Your task to perform on an android device: turn on bluetooth scan Image 0: 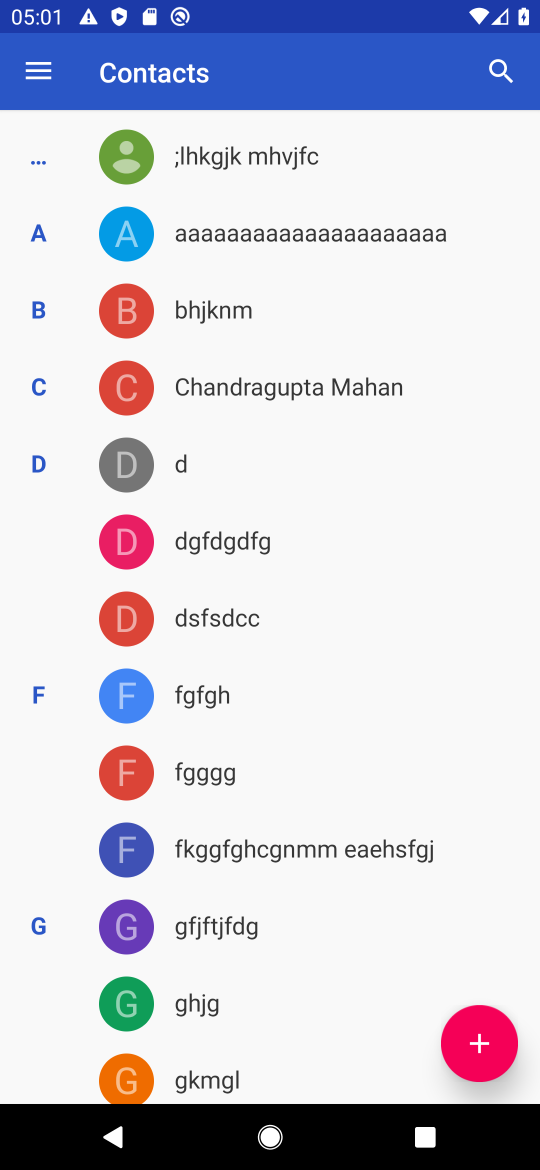
Step 0: press home button
Your task to perform on an android device: turn on bluetooth scan Image 1: 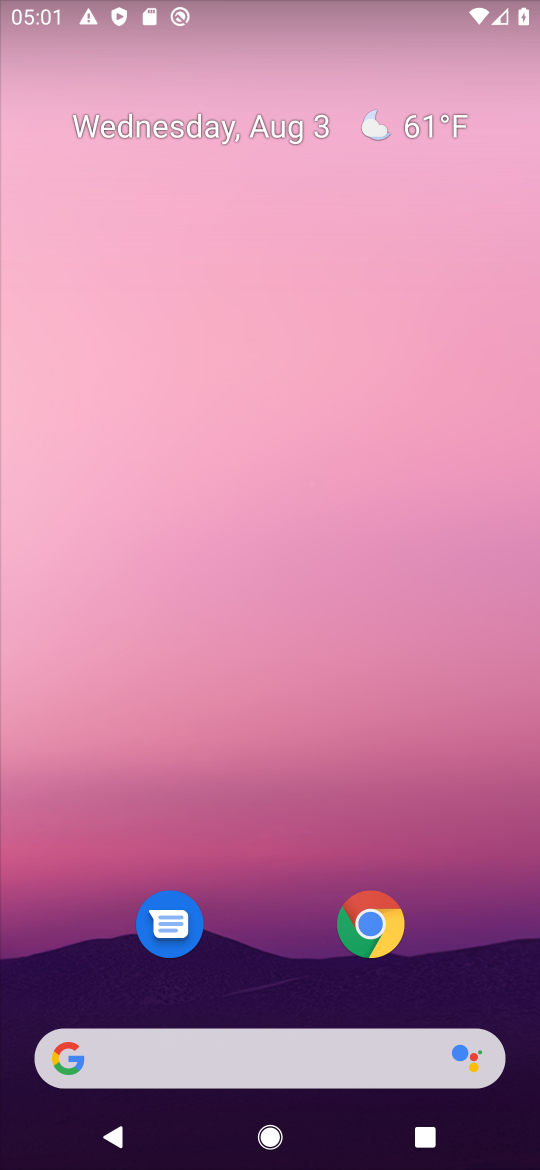
Step 1: drag from (256, 869) to (225, 363)
Your task to perform on an android device: turn on bluetooth scan Image 2: 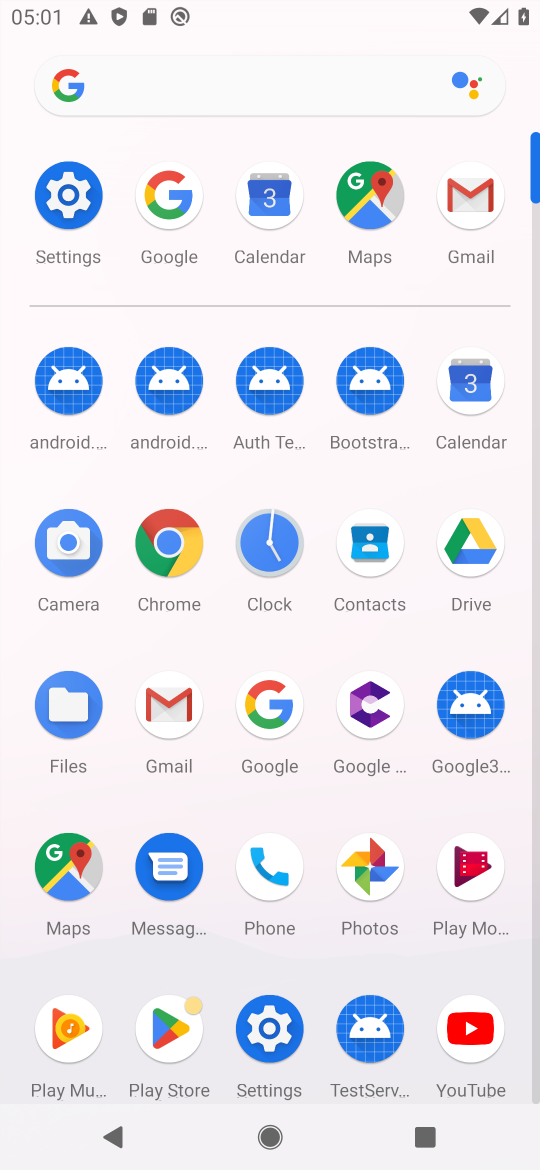
Step 2: click (62, 214)
Your task to perform on an android device: turn on bluetooth scan Image 3: 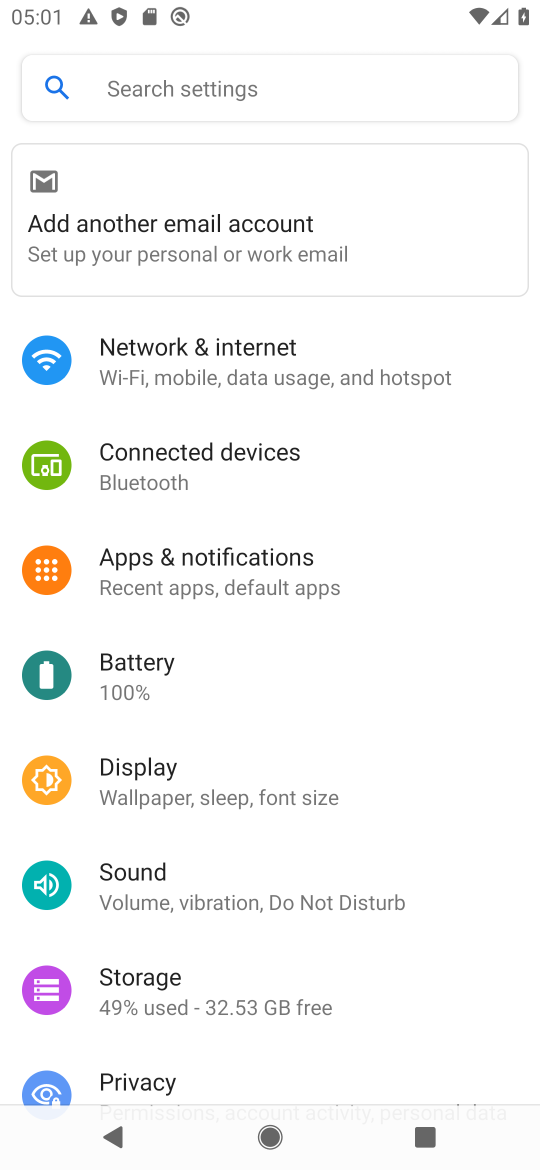
Step 3: drag from (274, 994) to (261, 552)
Your task to perform on an android device: turn on bluetooth scan Image 4: 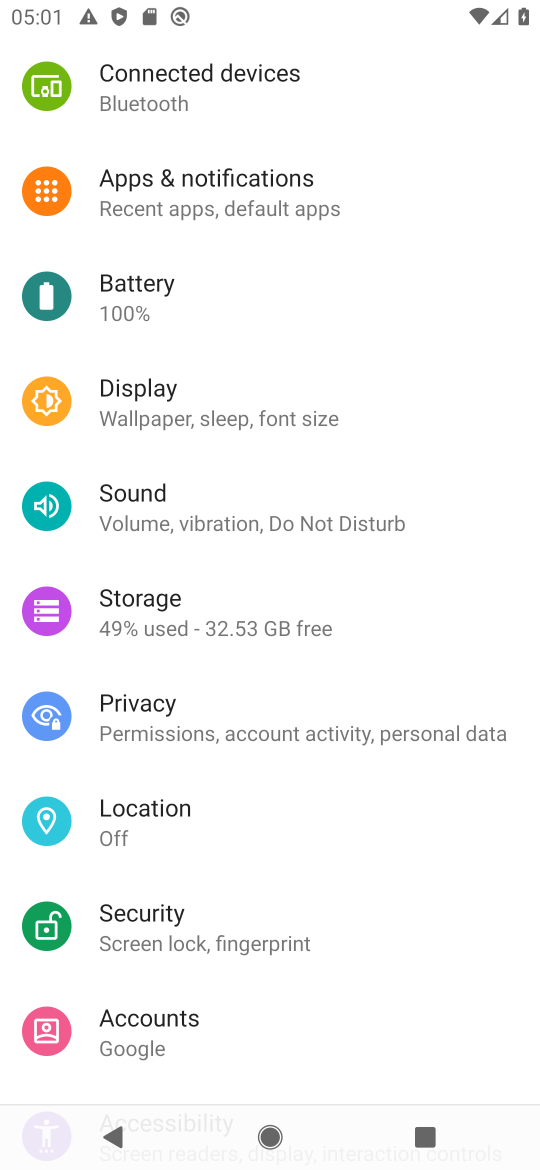
Step 4: click (246, 833)
Your task to perform on an android device: turn on bluetooth scan Image 5: 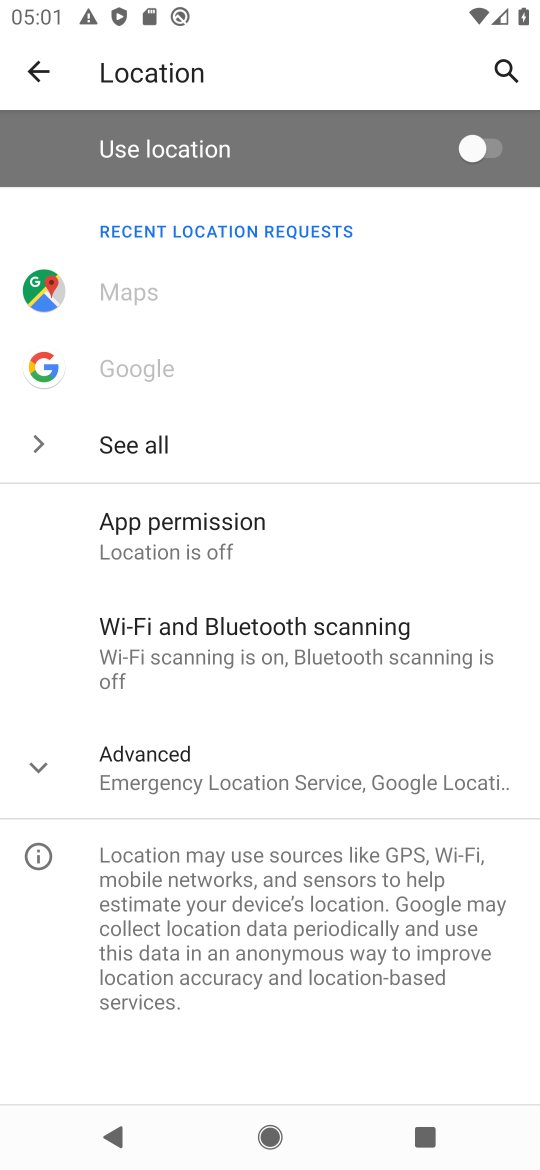
Step 5: click (318, 657)
Your task to perform on an android device: turn on bluetooth scan Image 6: 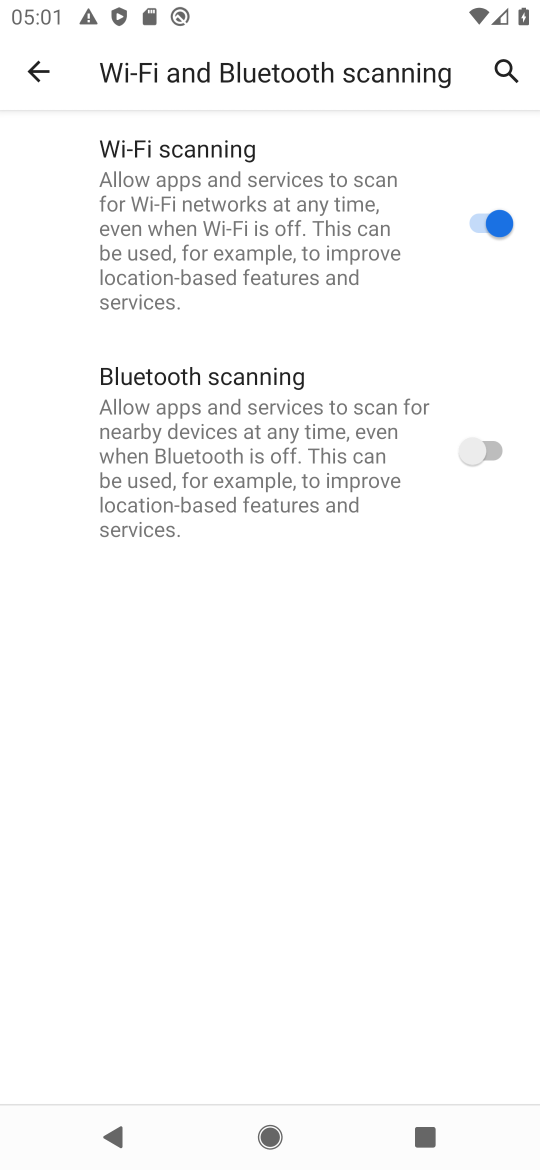
Step 6: click (460, 452)
Your task to perform on an android device: turn on bluetooth scan Image 7: 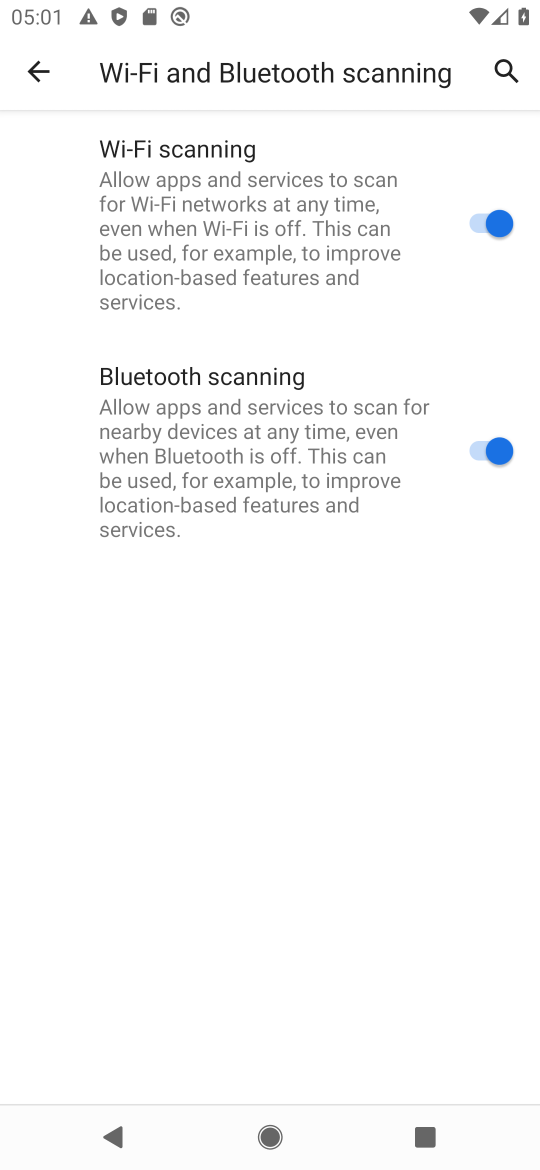
Step 7: task complete